Your task to perform on an android device: Open calendar and show me the fourth week of next month Image 0: 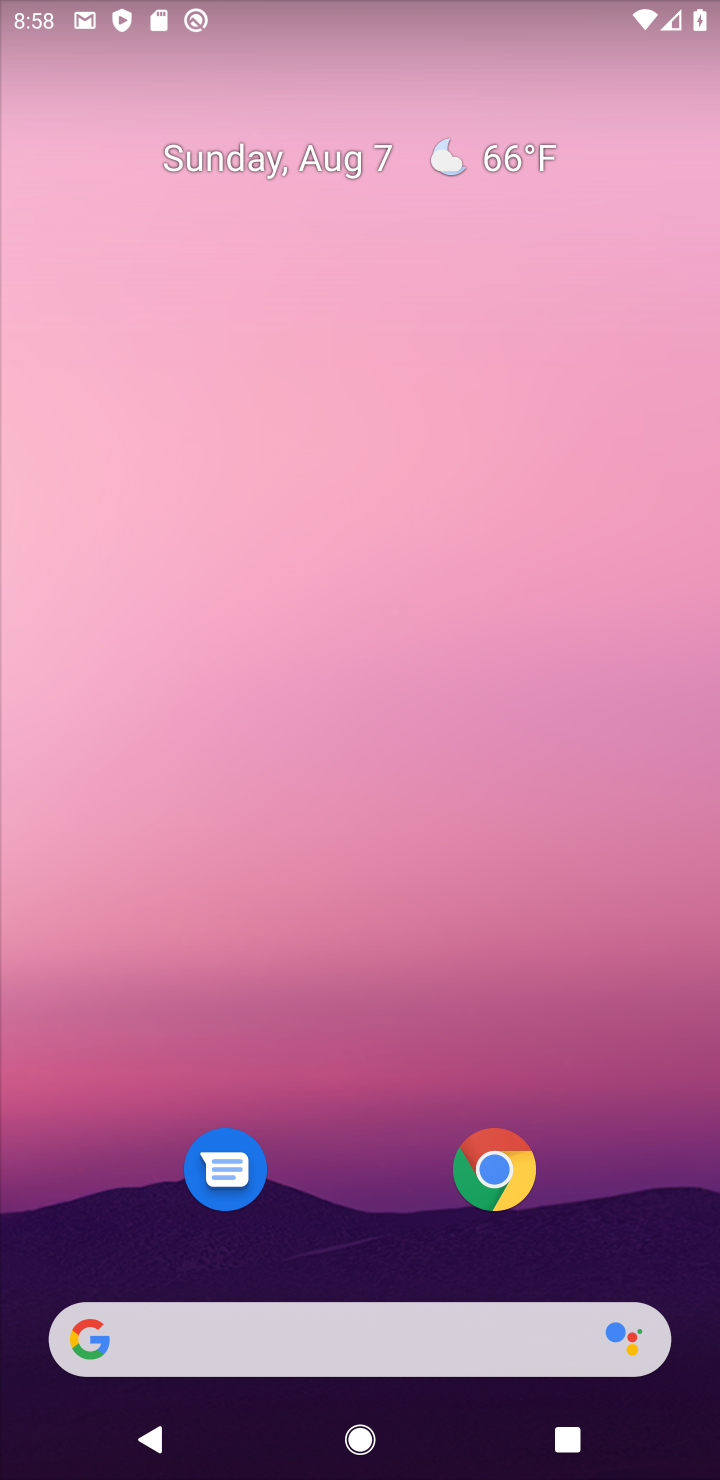
Step 0: drag from (439, 1344) to (212, 48)
Your task to perform on an android device: Open calendar and show me the fourth week of next month Image 1: 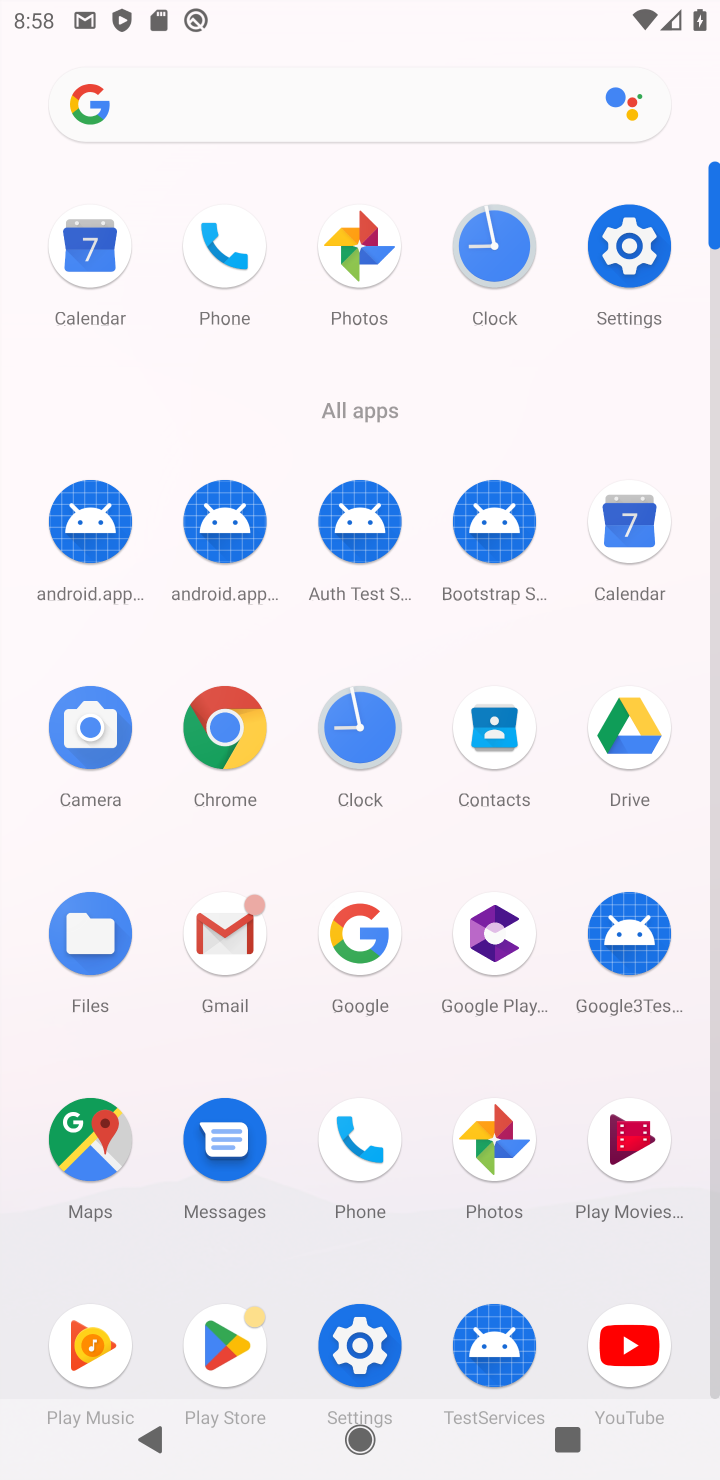
Step 1: click (636, 511)
Your task to perform on an android device: Open calendar and show me the fourth week of next month Image 2: 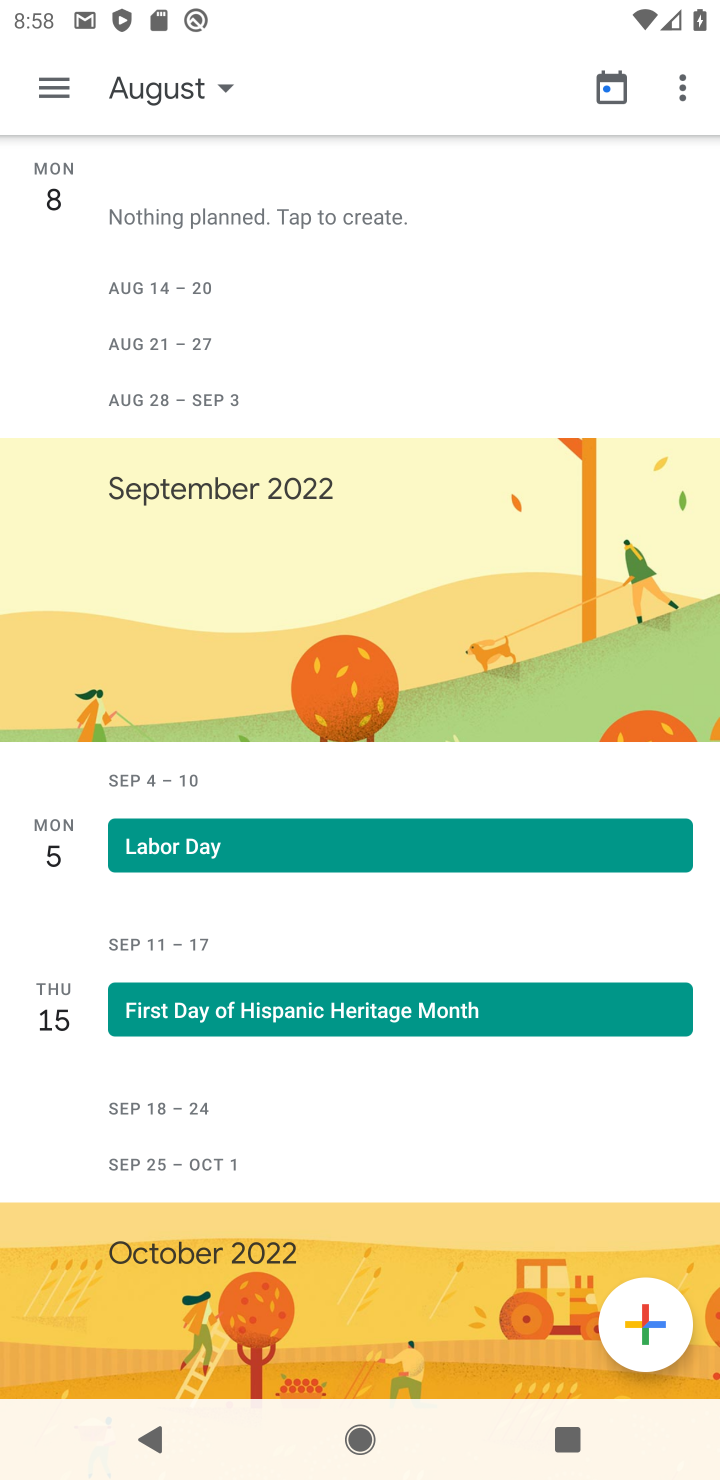
Step 2: click (37, 100)
Your task to perform on an android device: Open calendar and show me the fourth week of next month Image 3: 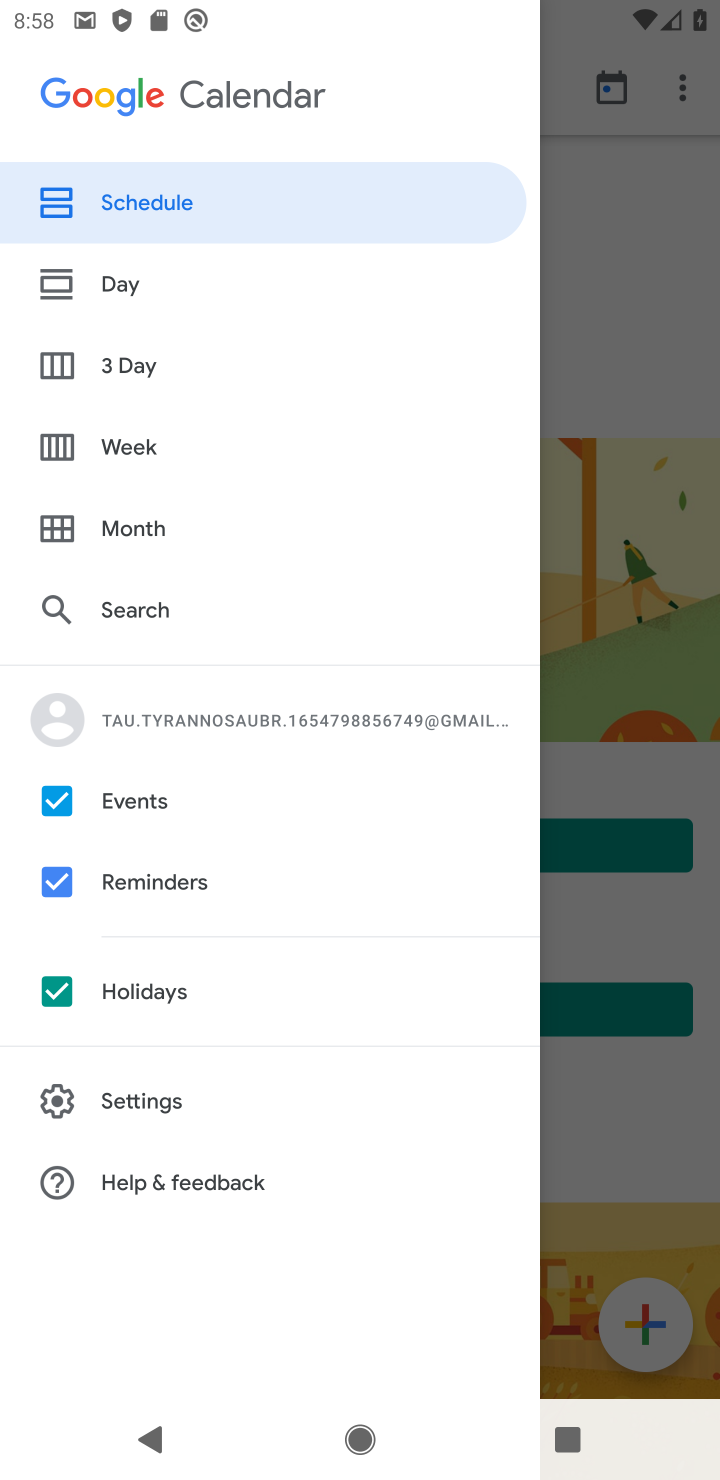
Step 3: click (92, 456)
Your task to perform on an android device: Open calendar and show me the fourth week of next month Image 4: 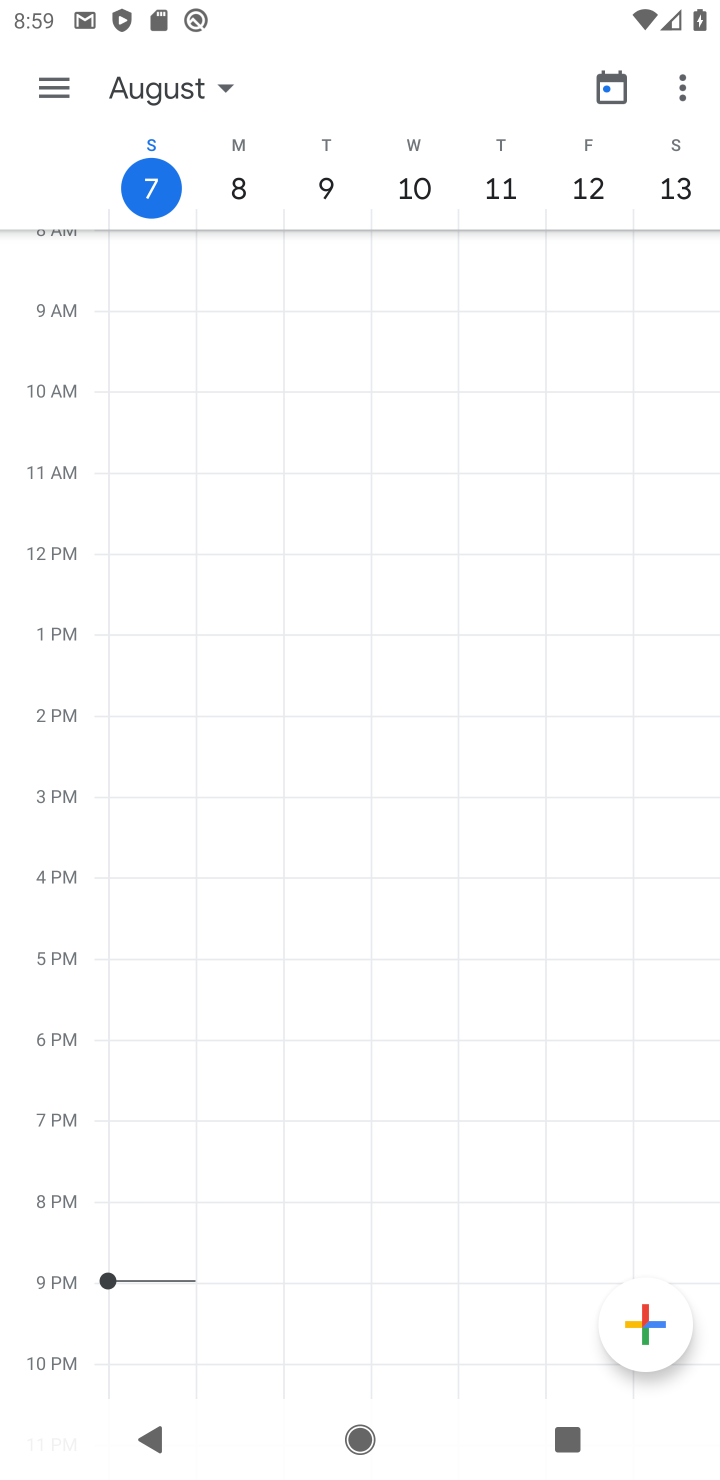
Step 4: task complete